Your task to perform on an android device: Open Youtube and go to "Your channel" Image 0: 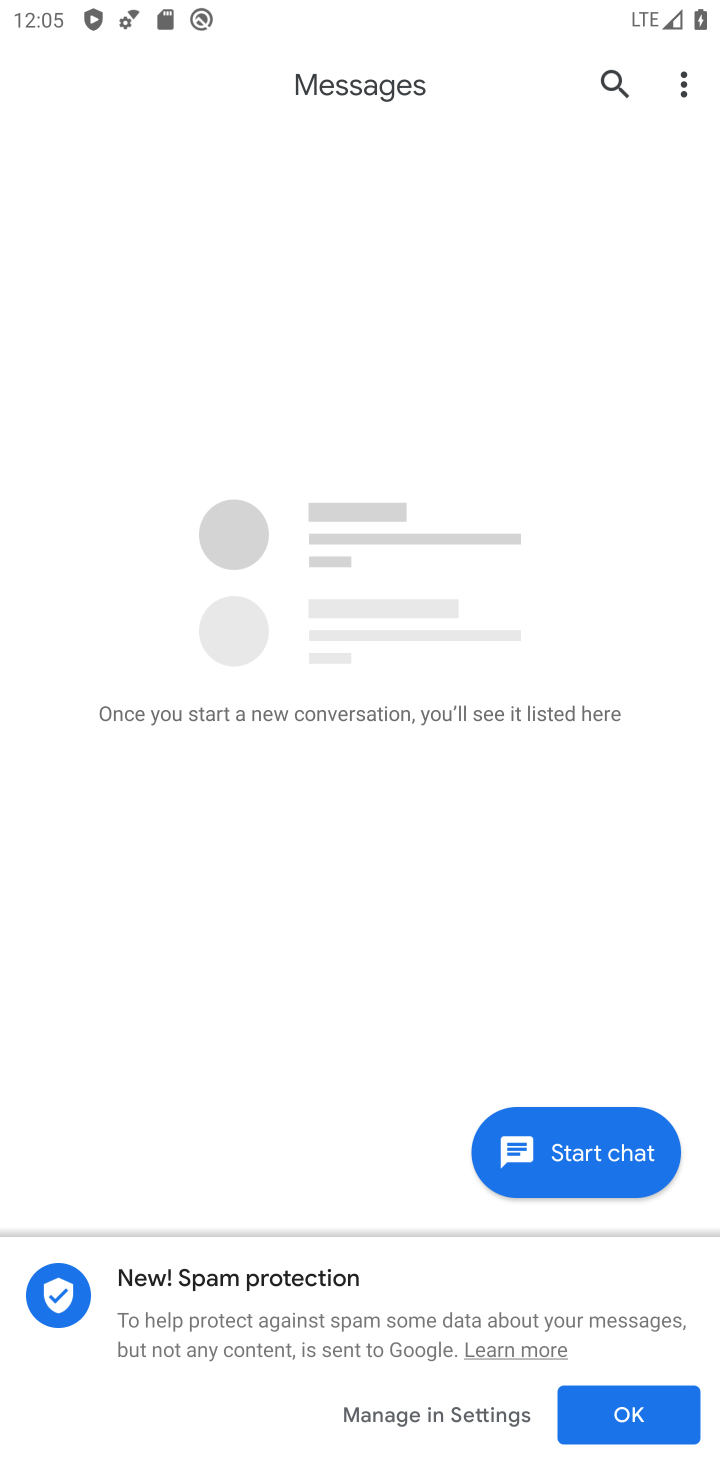
Step 0: press home button
Your task to perform on an android device: Open Youtube and go to "Your channel" Image 1: 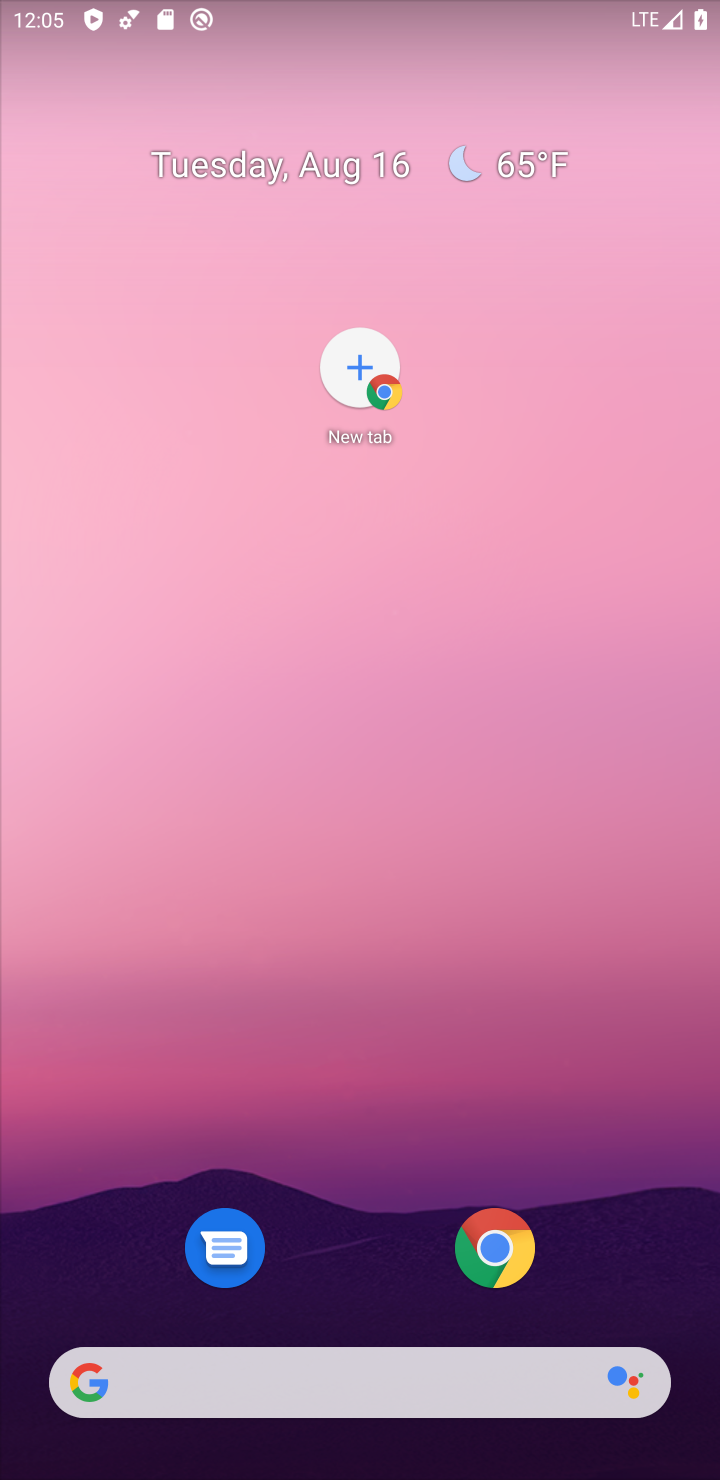
Step 1: drag from (332, 1305) to (394, 473)
Your task to perform on an android device: Open Youtube and go to "Your channel" Image 2: 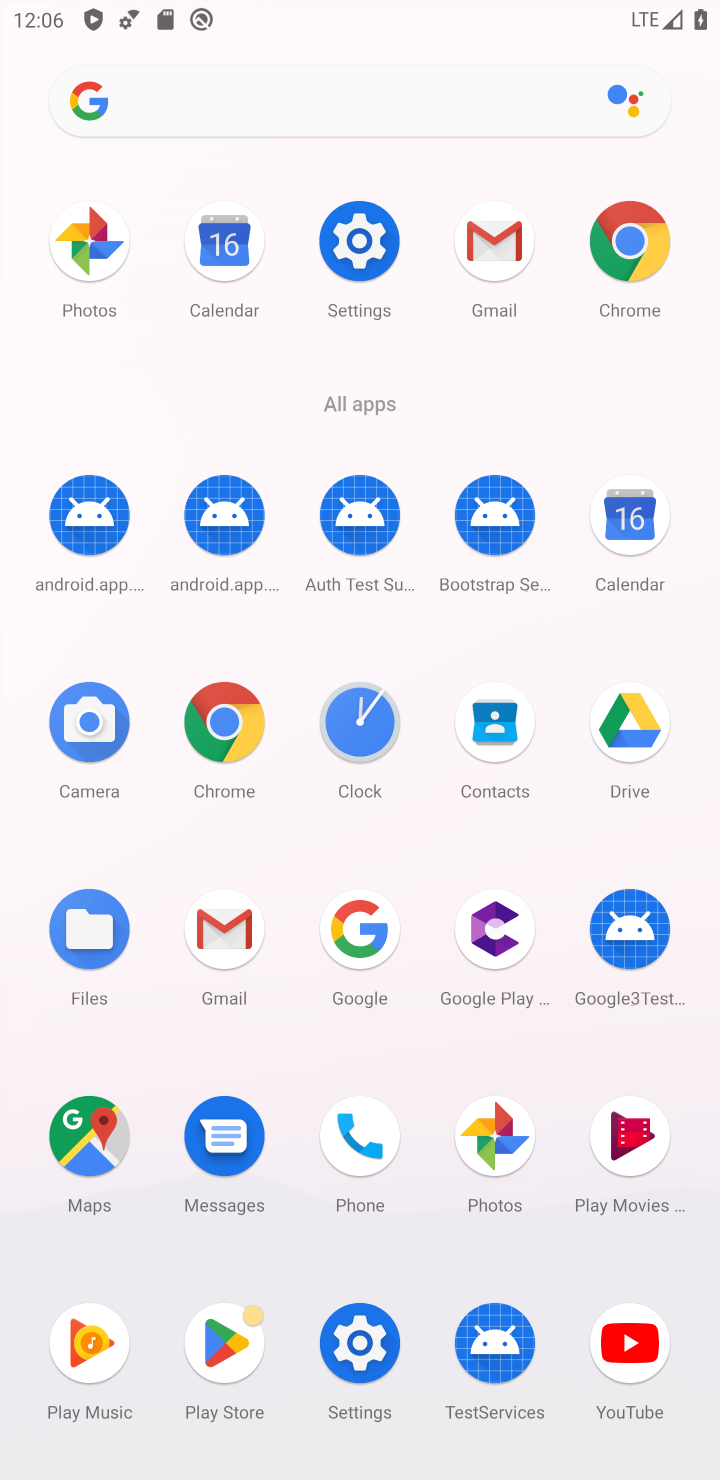
Step 2: click (598, 1372)
Your task to perform on an android device: Open Youtube and go to "Your channel" Image 3: 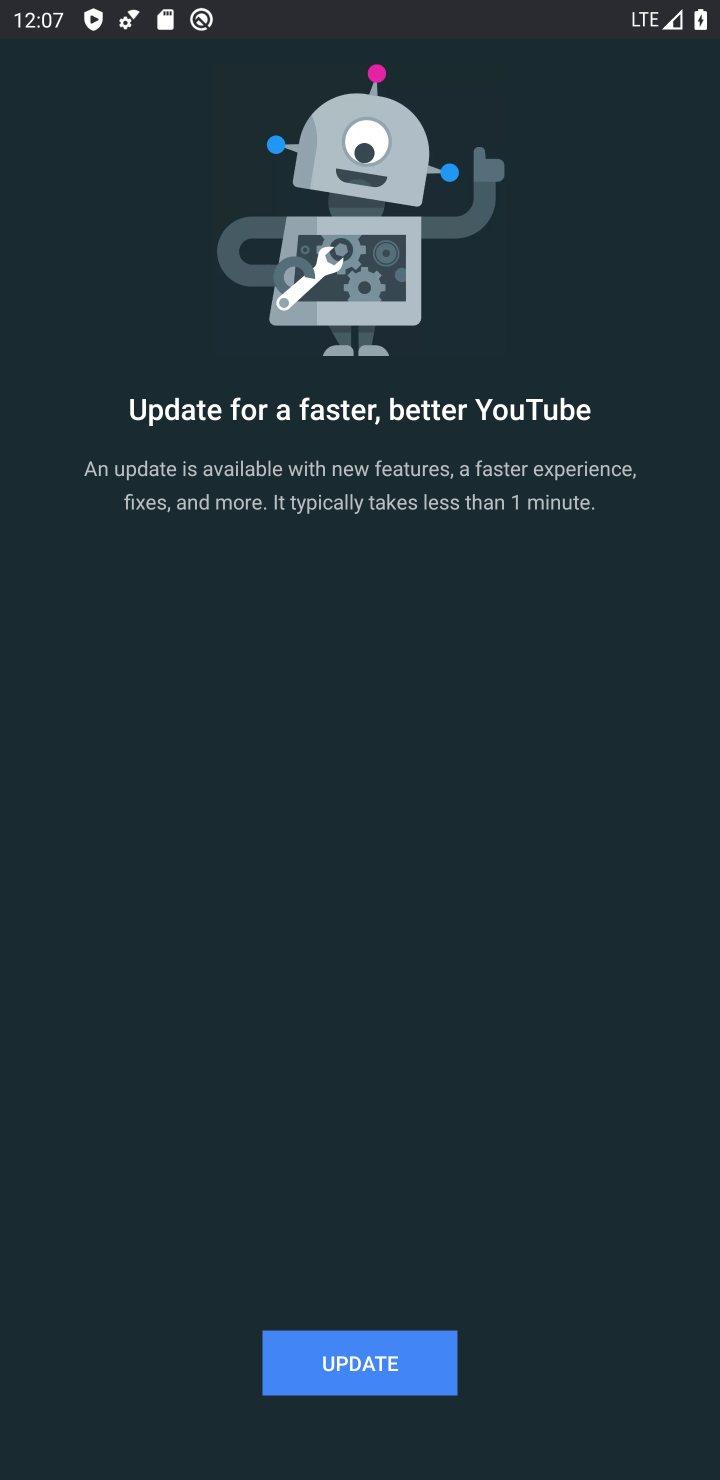
Step 3: click (431, 1370)
Your task to perform on an android device: Open Youtube and go to "Your channel" Image 4: 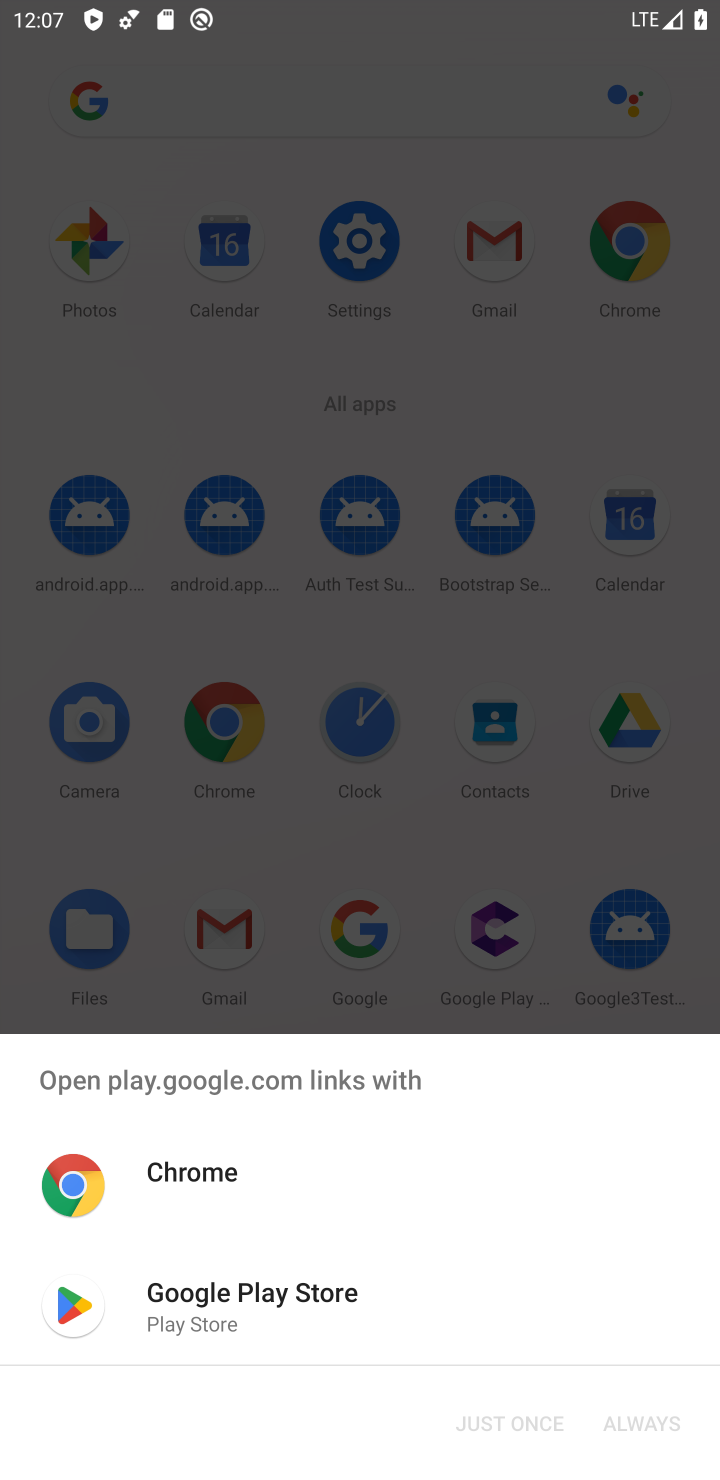
Step 4: click (322, 1317)
Your task to perform on an android device: Open Youtube and go to "Your channel" Image 5: 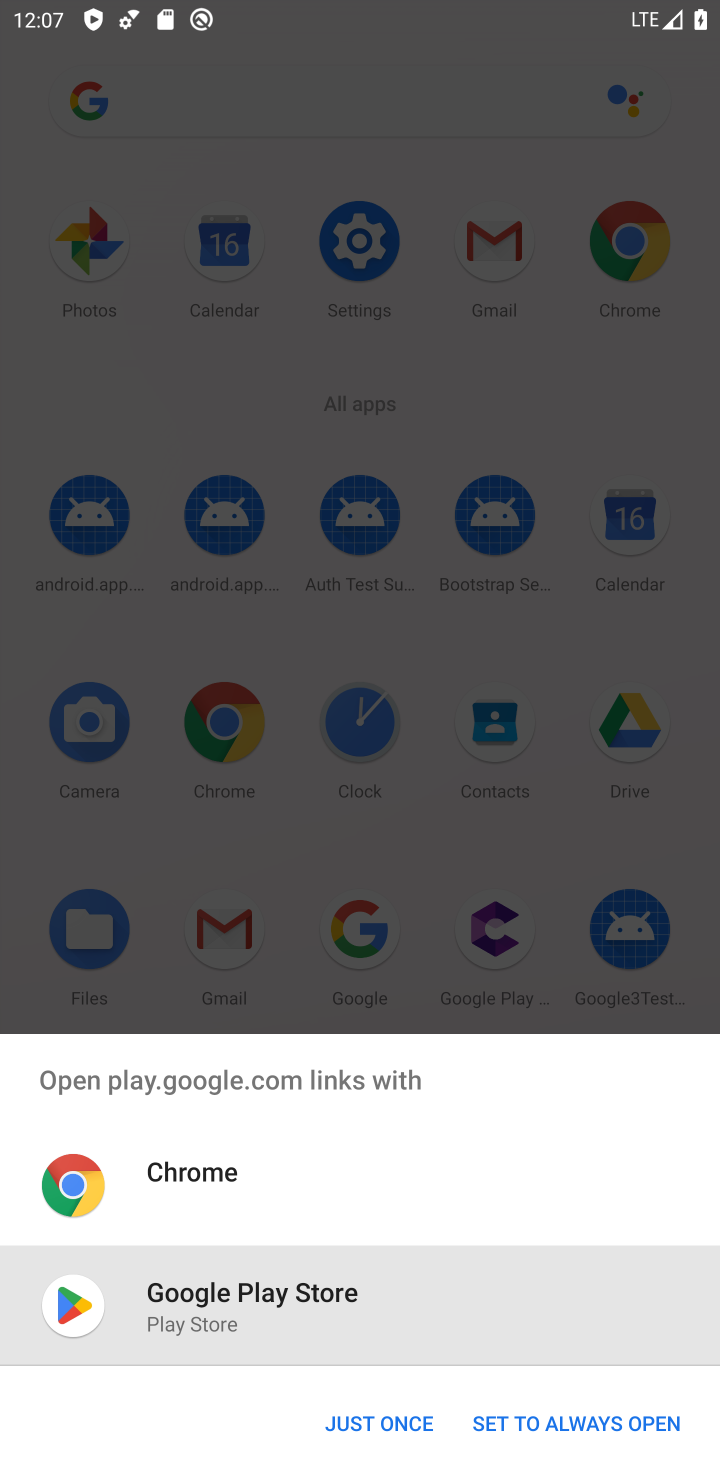
Step 5: click (402, 1427)
Your task to perform on an android device: Open Youtube and go to "Your channel" Image 6: 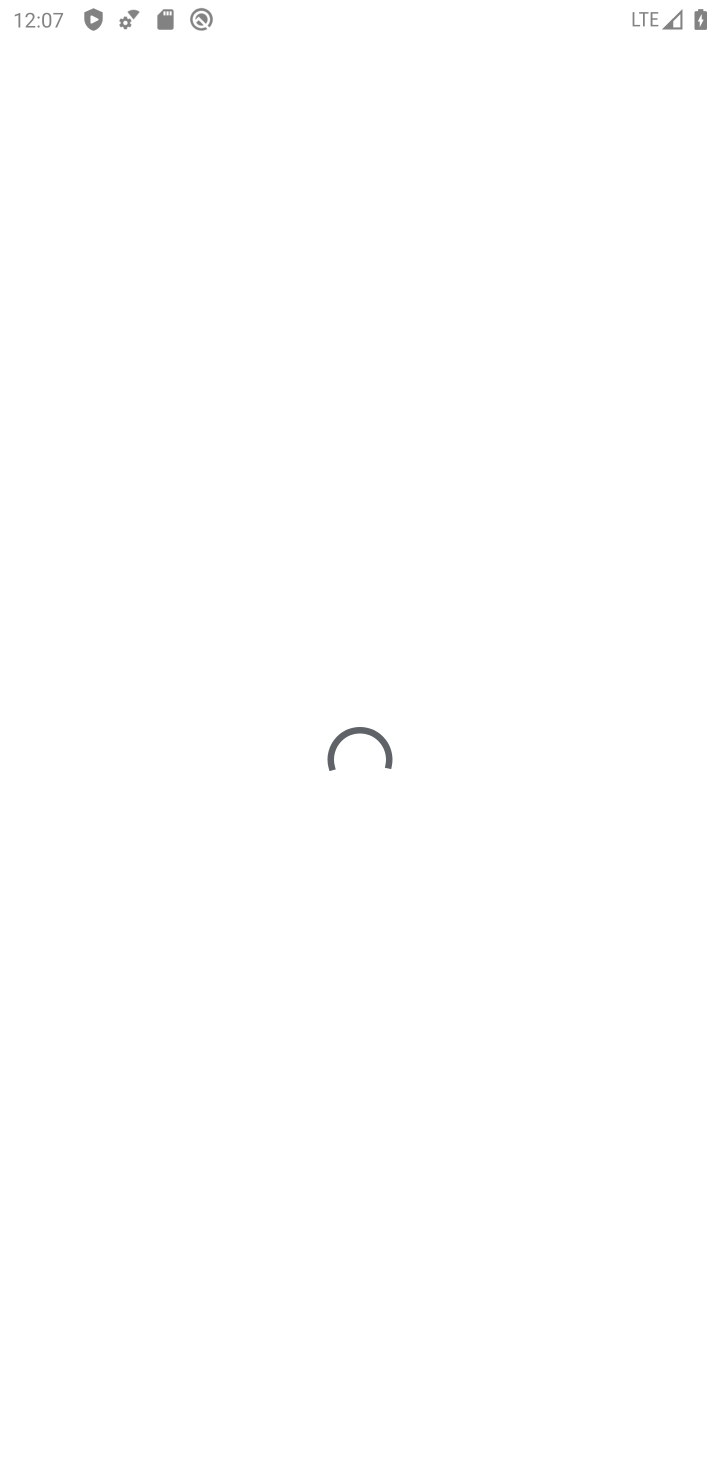
Step 6: click (386, 1425)
Your task to perform on an android device: Open Youtube and go to "Your channel" Image 7: 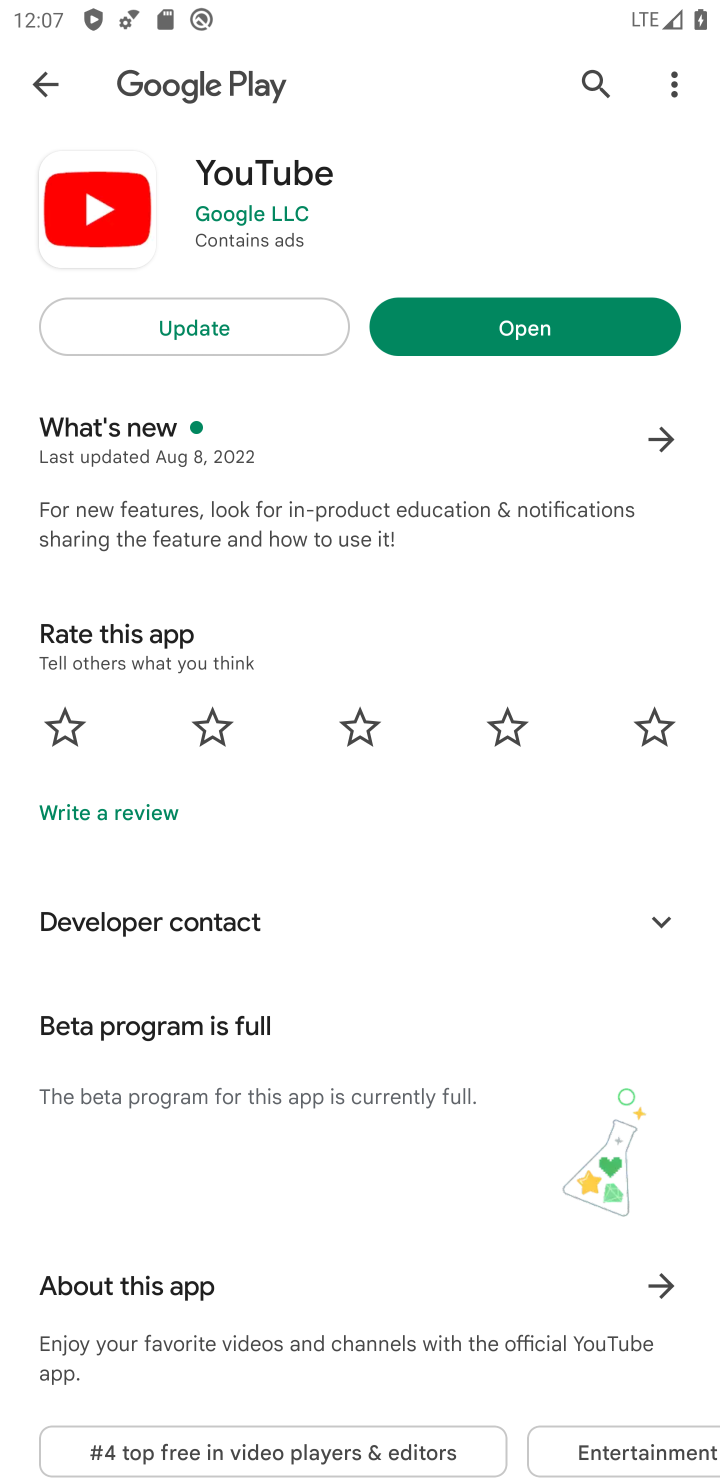
Step 7: click (277, 333)
Your task to perform on an android device: Open Youtube and go to "Your channel" Image 8: 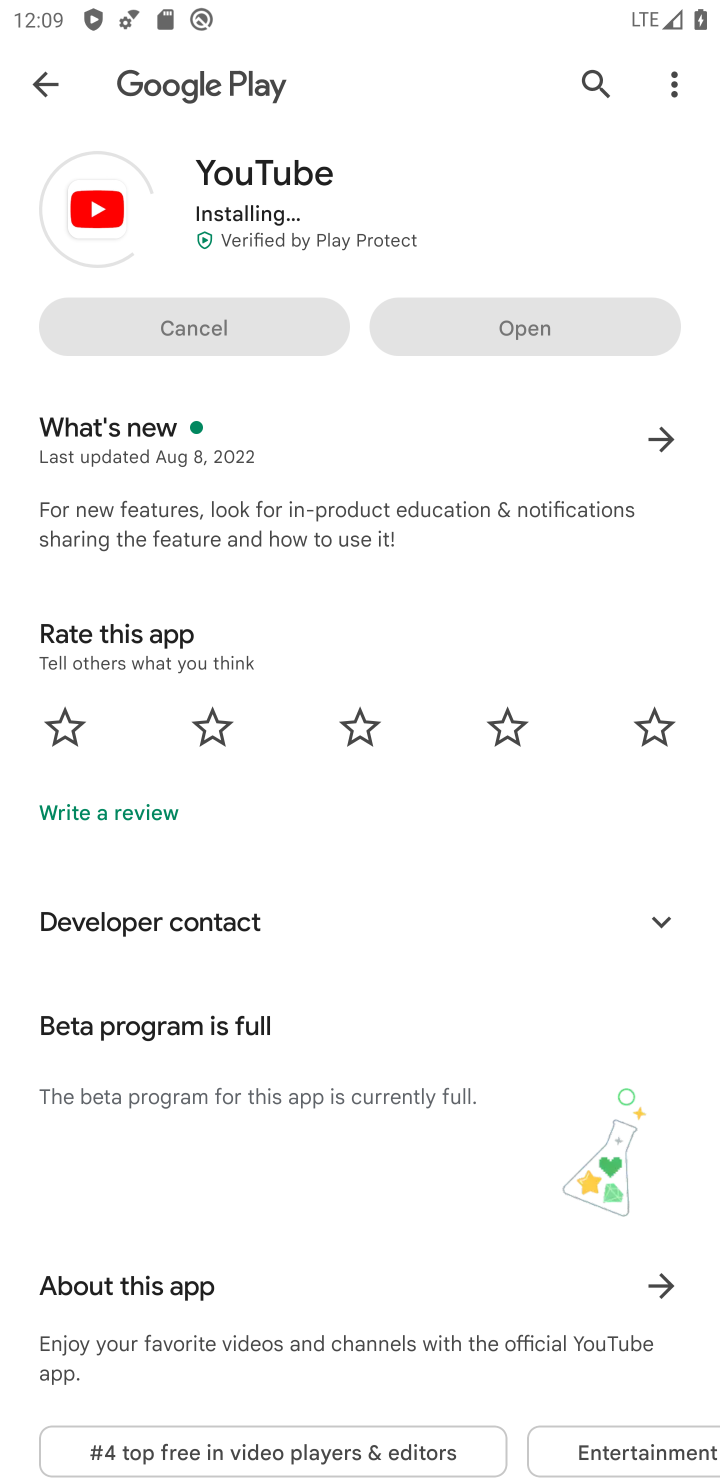
Step 8: task complete